Your task to perform on an android device: turn on the 12-hour format for clock Image 0: 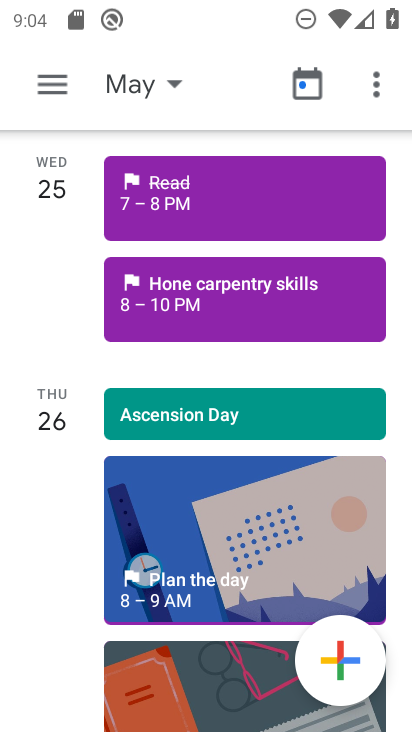
Step 0: press home button
Your task to perform on an android device: turn on the 12-hour format for clock Image 1: 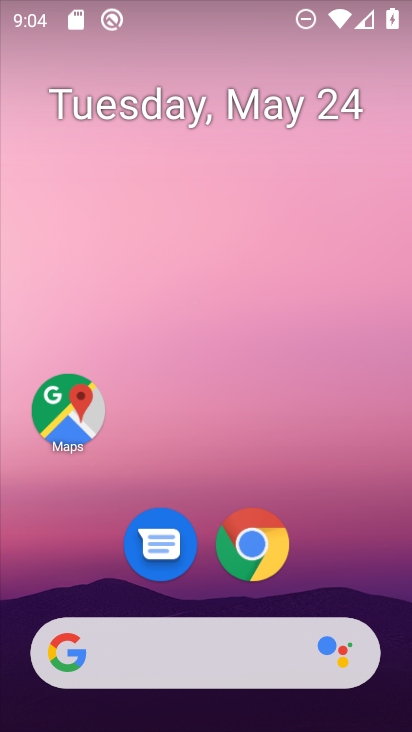
Step 1: drag from (388, 608) to (315, 121)
Your task to perform on an android device: turn on the 12-hour format for clock Image 2: 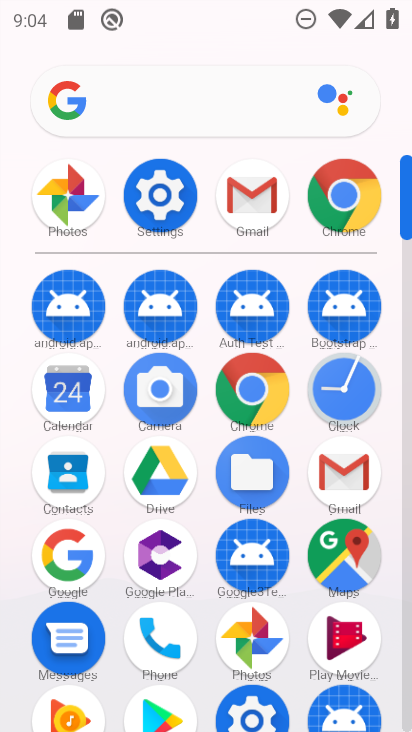
Step 2: click (348, 382)
Your task to perform on an android device: turn on the 12-hour format for clock Image 3: 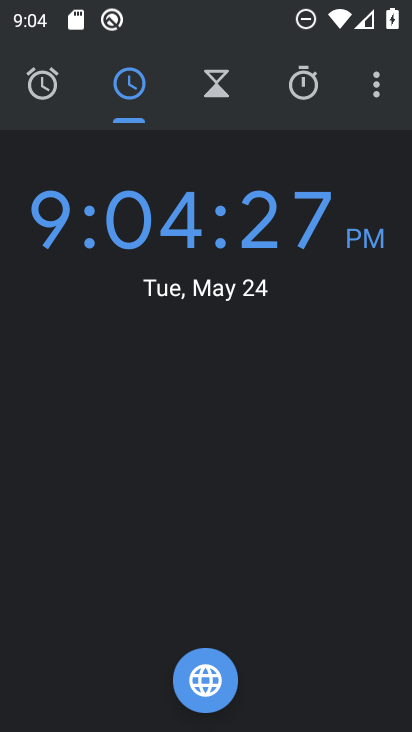
Step 3: click (377, 95)
Your task to perform on an android device: turn on the 12-hour format for clock Image 4: 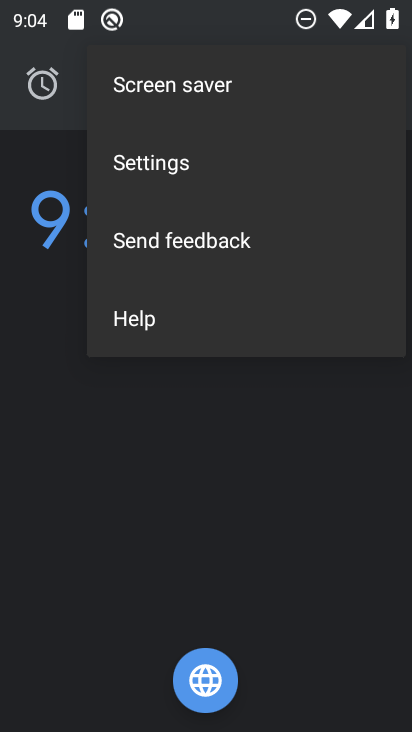
Step 4: click (332, 182)
Your task to perform on an android device: turn on the 12-hour format for clock Image 5: 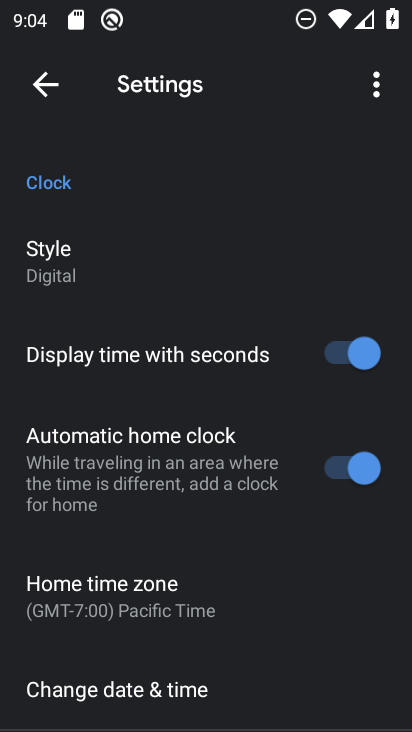
Step 5: drag from (188, 506) to (212, 261)
Your task to perform on an android device: turn on the 12-hour format for clock Image 6: 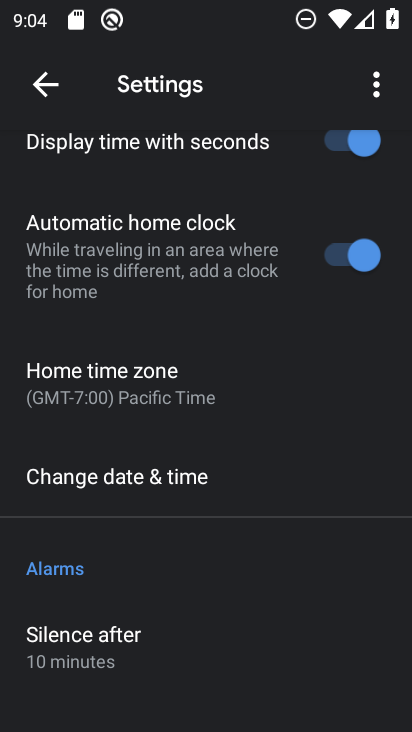
Step 6: click (193, 497)
Your task to perform on an android device: turn on the 12-hour format for clock Image 7: 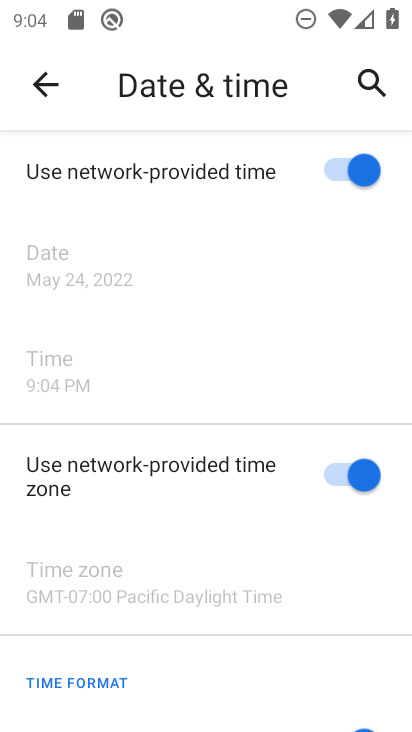
Step 7: task complete